Your task to perform on an android device: change text size in settings app Image 0: 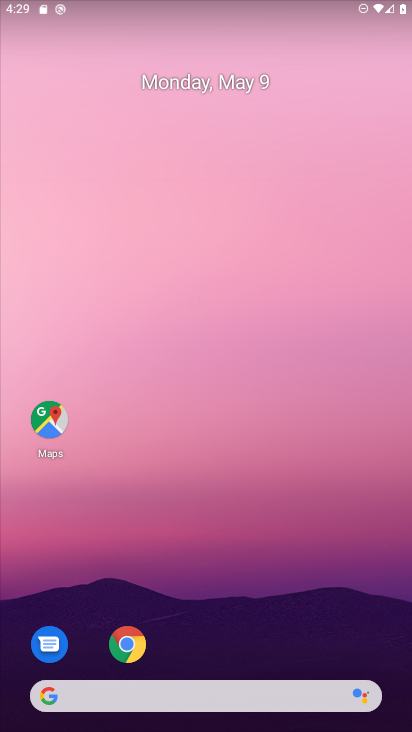
Step 0: drag from (279, 583) to (270, 177)
Your task to perform on an android device: change text size in settings app Image 1: 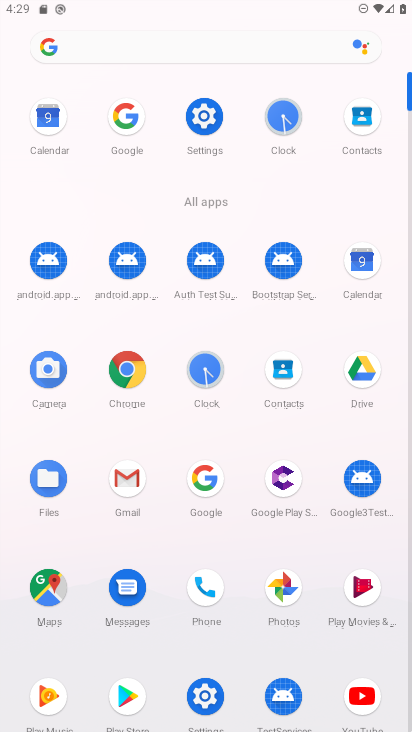
Step 1: click (196, 140)
Your task to perform on an android device: change text size in settings app Image 2: 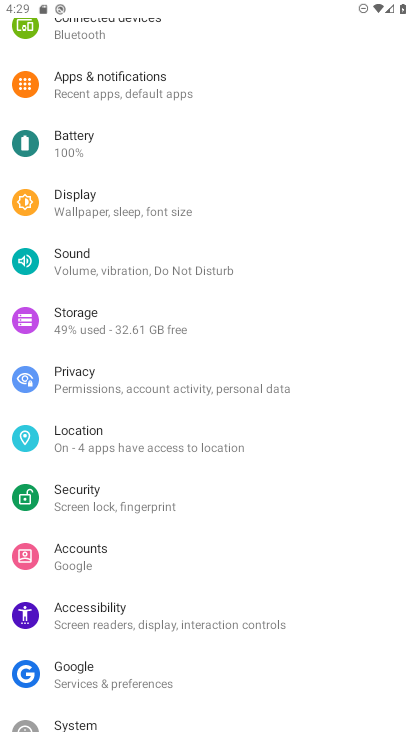
Step 2: drag from (74, 579) to (84, 359)
Your task to perform on an android device: change text size in settings app Image 3: 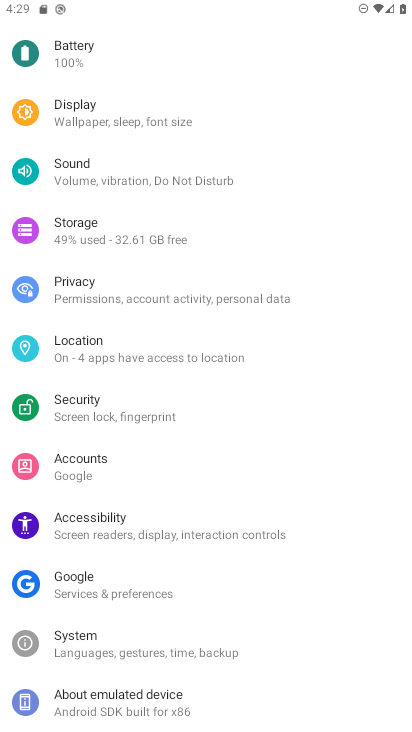
Step 3: click (119, 527)
Your task to perform on an android device: change text size in settings app Image 4: 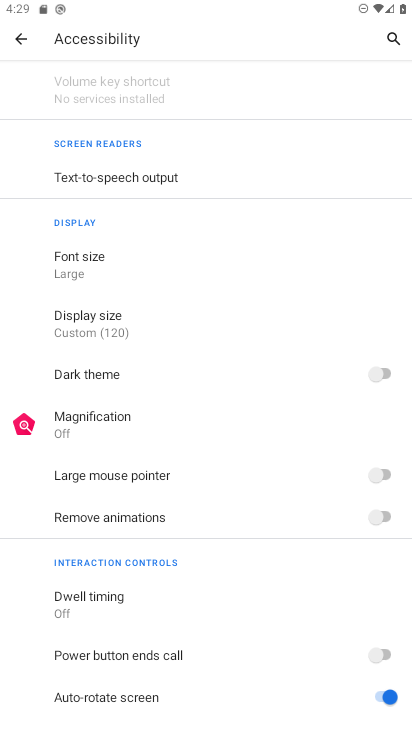
Step 4: click (108, 274)
Your task to perform on an android device: change text size in settings app Image 5: 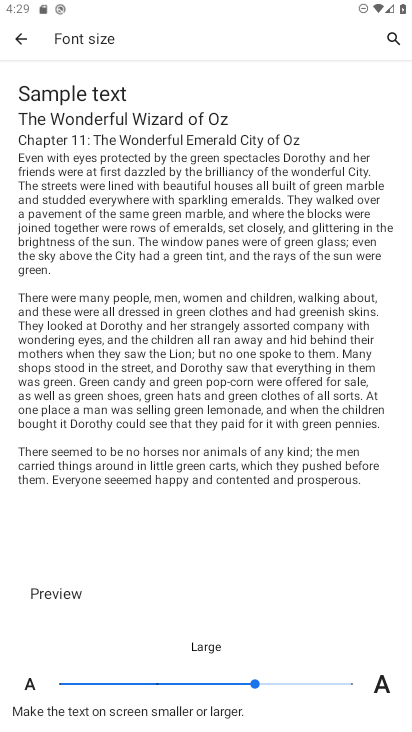
Step 5: click (347, 682)
Your task to perform on an android device: change text size in settings app Image 6: 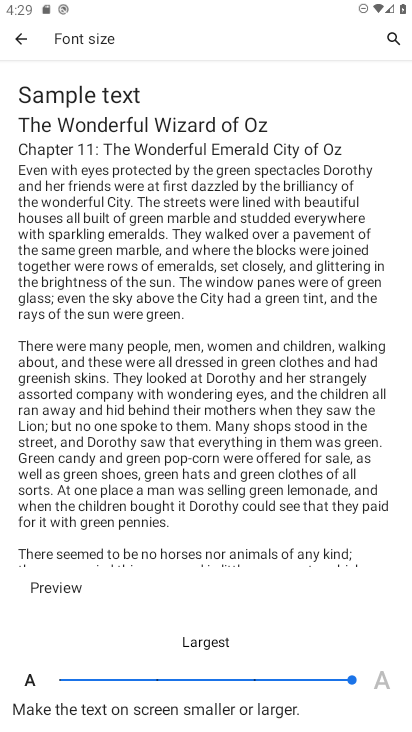
Step 6: task complete